Your task to perform on an android device: When is my next meeting? Image 0: 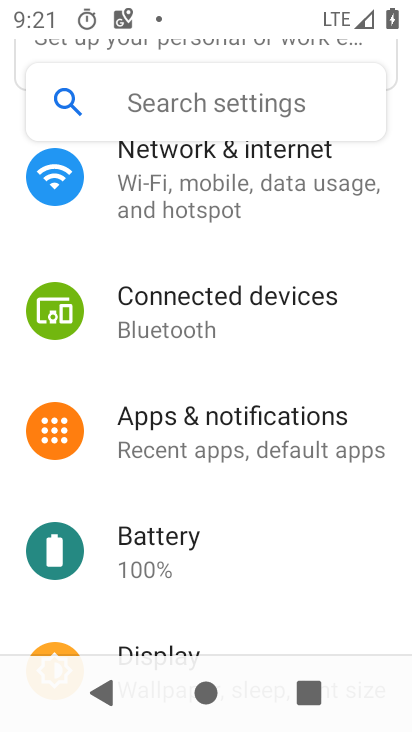
Step 0: press home button
Your task to perform on an android device: When is my next meeting? Image 1: 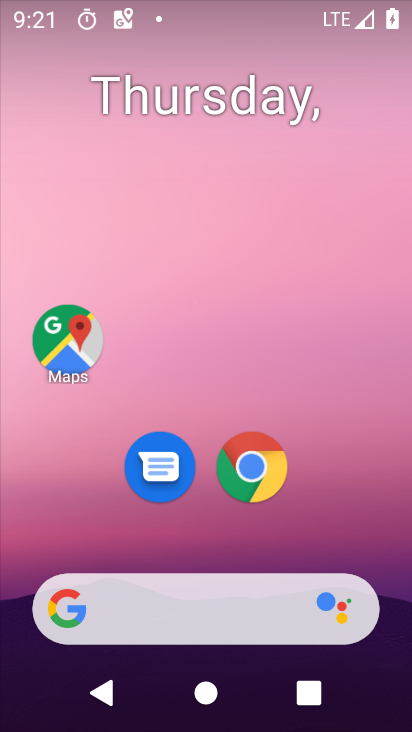
Step 1: drag from (326, 492) to (309, 160)
Your task to perform on an android device: When is my next meeting? Image 2: 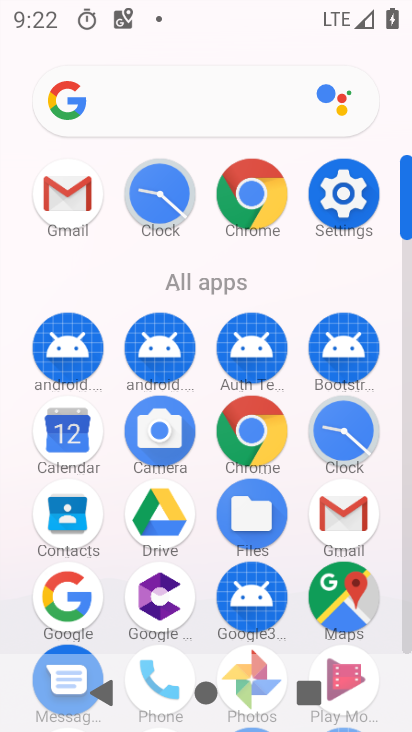
Step 2: click (71, 432)
Your task to perform on an android device: When is my next meeting? Image 3: 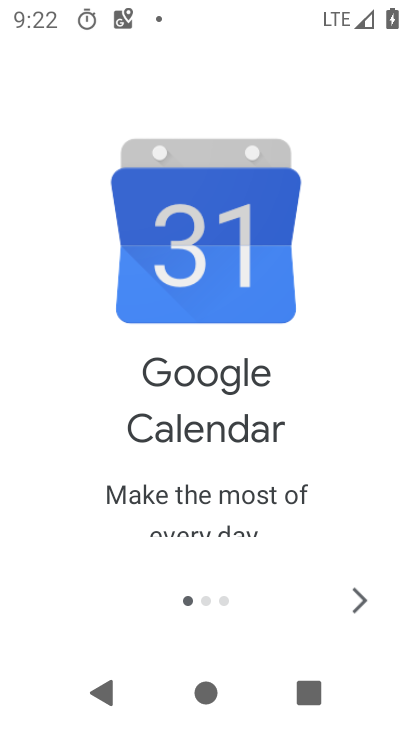
Step 3: click (345, 610)
Your task to perform on an android device: When is my next meeting? Image 4: 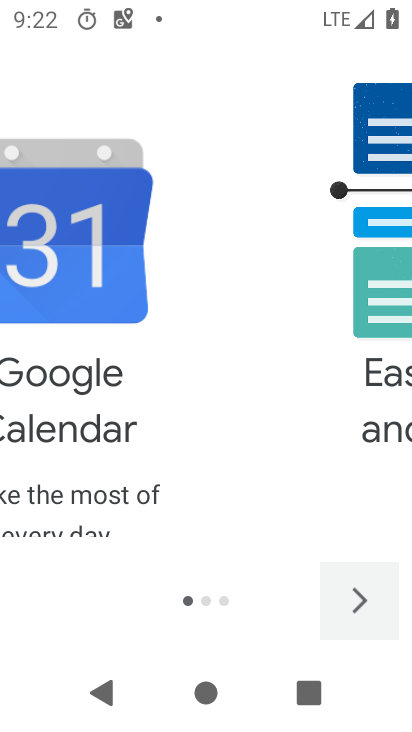
Step 4: click (345, 610)
Your task to perform on an android device: When is my next meeting? Image 5: 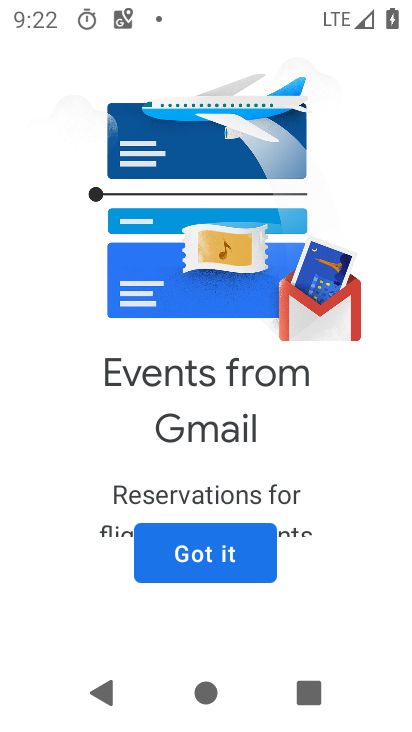
Step 5: click (207, 547)
Your task to perform on an android device: When is my next meeting? Image 6: 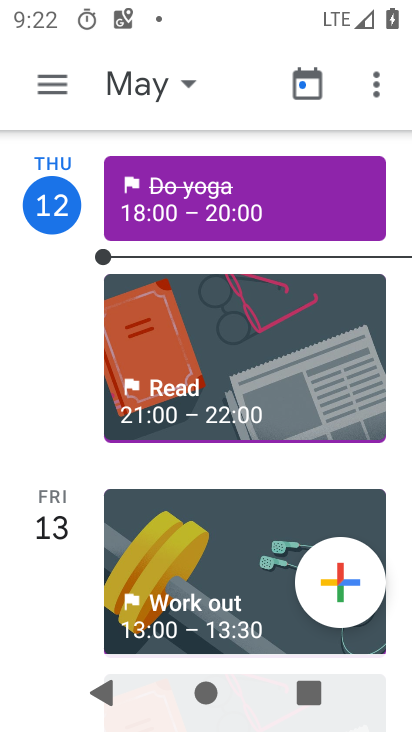
Step 6: task complete